Your task to perform on an android device: What's the weather today? Image 0: 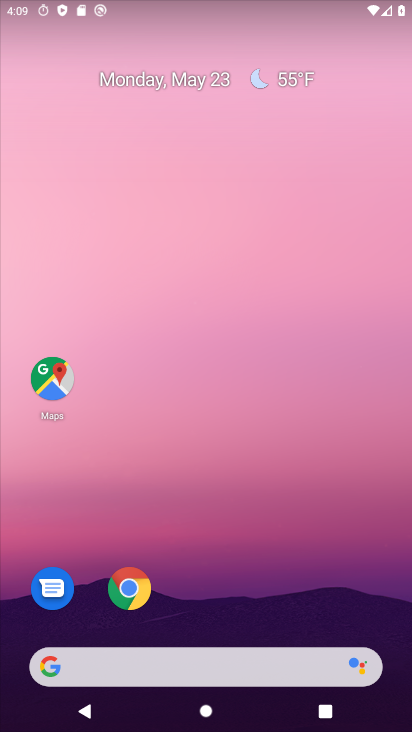
Step 0: drag from (224, 565) to (201, 99)
Your task to perform on an android device: What's the weather today? Image 1: 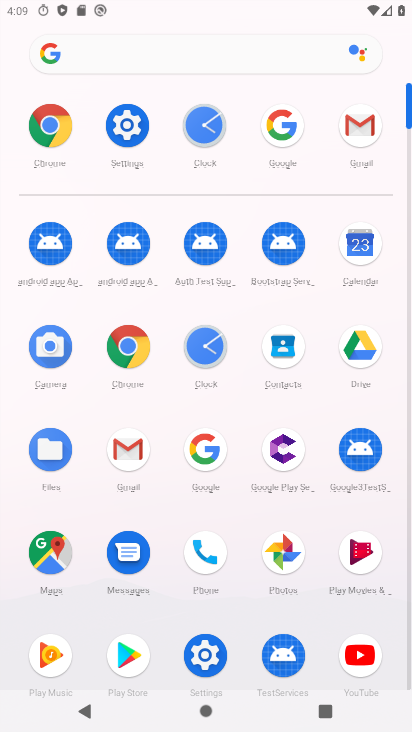
Step 1: click (207, 455)
Your task to perform on an android device: What's the weather today? Image 2: 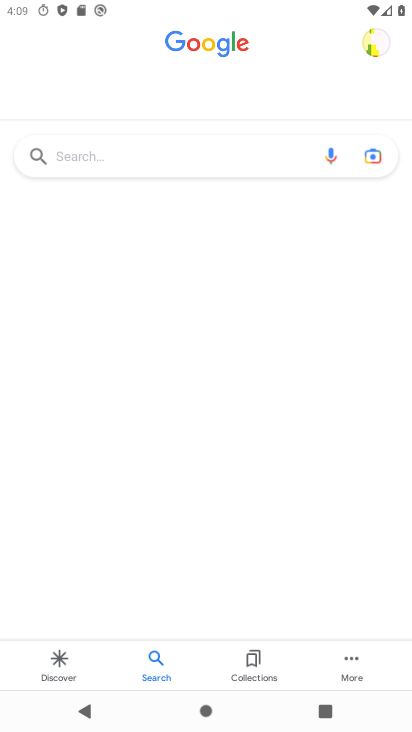
Step 2: click (141, 154)
Your task to perform on an android device: What's the weather today? Image 3: 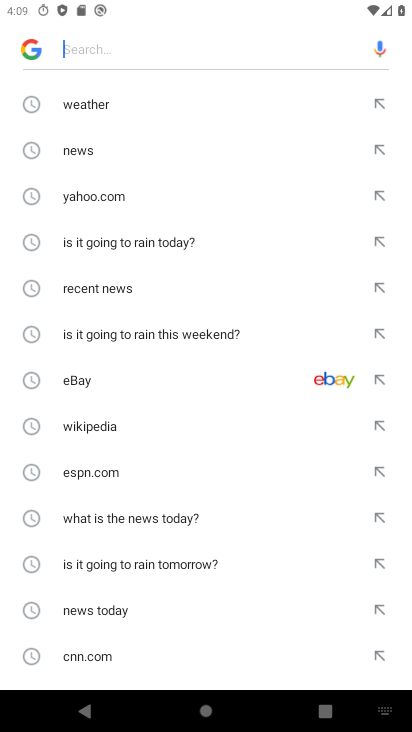
Step 3: click (93, 101)
Your task to perform on an android device: What's the weather today? Image 4: 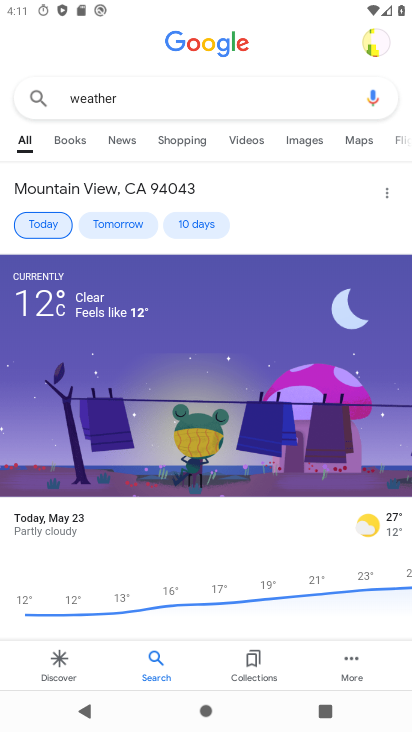
Step 4: task complete